Your task to perform on an android device: Empty the shopping cart on bestbuy. Add macbook pro 15 inch to the cart on bestbuy, then select checkout. Image 0: 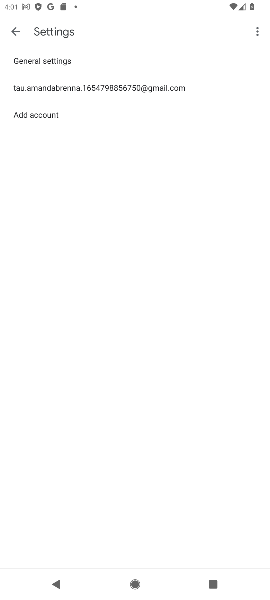
Step 0: press home button
Your task to perform on an android device: Empty the shopping cart on bestbuy. Add macbook pro 15 inch to the cart on bestbuy, then select checkout. Image 1: 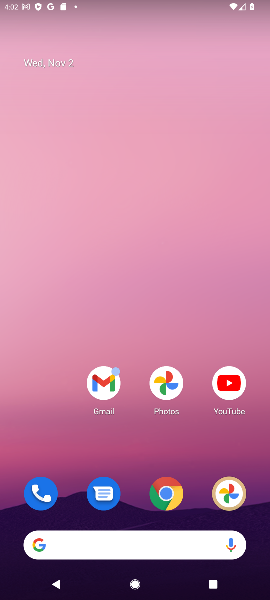
Step 1: drag from (142, 476) to (141, 155)
Your task to perform on an android device: Empty the shopping cart on bestbuy. Add macbook pro 15 inch to the cart on bestbuy, then select checkout. Image 2: 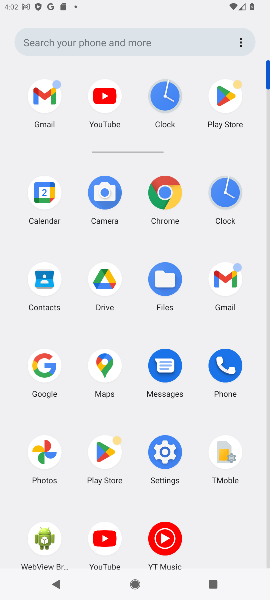
Step 2: click (42, 368)
Your task to perform on an android device: Empty the shopping cart on bestbuy. Add macbook pro 15 inch to the cart on bestbuy, then select checkout. Image 3: 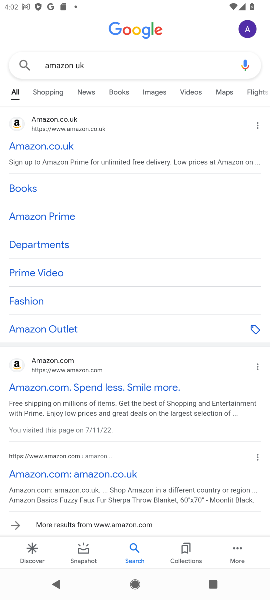
Step 3: click (98, 59)
Your task to perform on an android device: Empty the shopping cart on bestbuy. Add macbook pro 15 inch to the cart on bestbuy, then select checkout. Image 4: 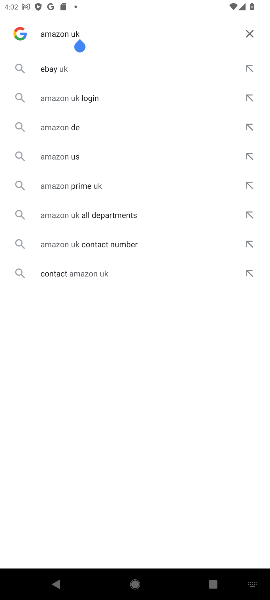
Step 4: click (252, 32)
Your task to perform on an android device: Empty the shopping cart on bestbuy. Add macbook pro 15 inch to the cart on bestbuy, then select checkout. Image 5: 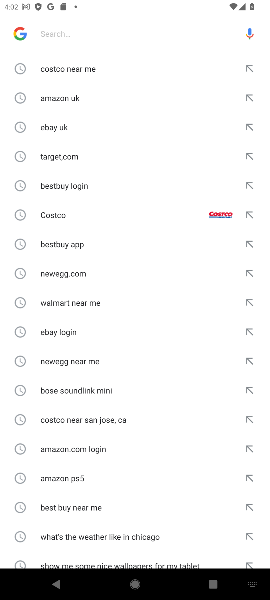
Step 5: click (67, 34)
Your task to perform on an android device: Empty the shopping cart on bestbuy. Add macbook pro 15 inch to the cart on bestbuy, then select checkout. Image 6: 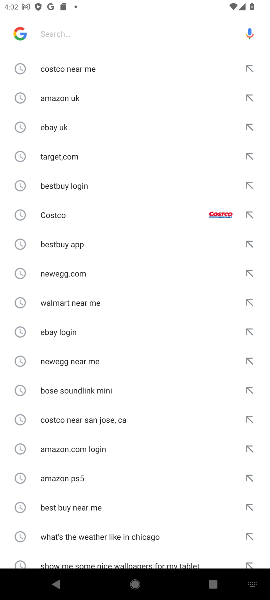
Step 6: type "bestbuy "
Your task to perform on an android device: Empty the shopping cart on bestbuy. Add macbook pro 15 inch to the cart on bestbuy, then select checkout. Image 7: 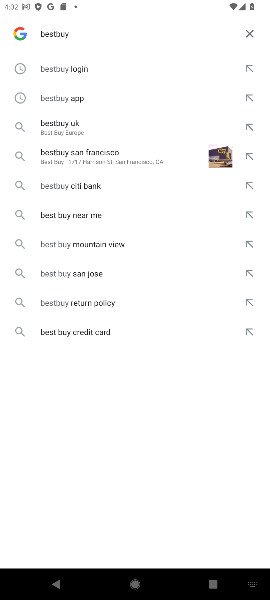
Step 7: click (60, 222)
Your task to perform on an android device: Empty the shopping cart on bestbuy. Add macbook pro 15 inch to the cart on bestbuy, then select checkout. Image 8: 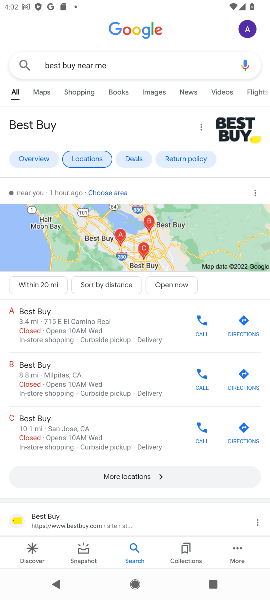
Step 8: drag from (89, 472) to (94, 327)
Your task to perform on an android device: Empty the shopping cart on bestbuy. Add macbook pro 15 inch to the cart on bestbuy, then select checkout. Image 9: 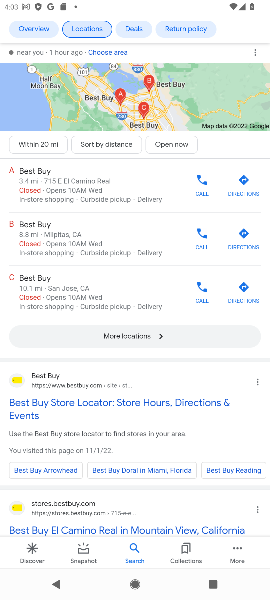
Step 9: click (15, 375)
Your task to perform on an android device: Empty the shopping cart on bestbuy. Add macbook pro 15 inch to the cart on bestbuy, then select checkout. Image 10: 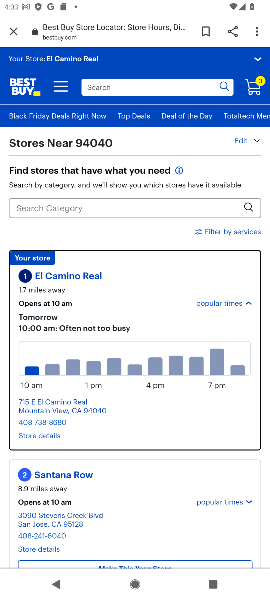
Step 10: click (109, 84)
Your task to perform on an android device: Empty the shopping cart on bestbuy. Add macbook pro 15 inch to the cart on bestbuy, then select checkout. Image 11: 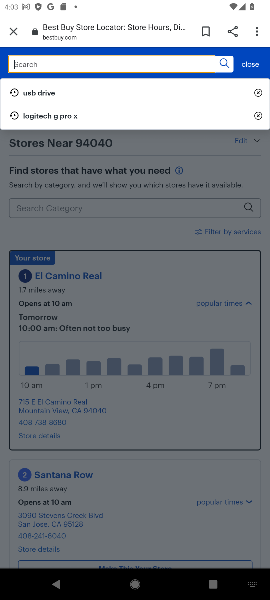
Step 11: click (24, 58)
Your task to perform on an android device: Empty the shopping cart on bestbuy. Add macbook pro 15 inch to the cart on bestbuy, then select checkout. Image 12: 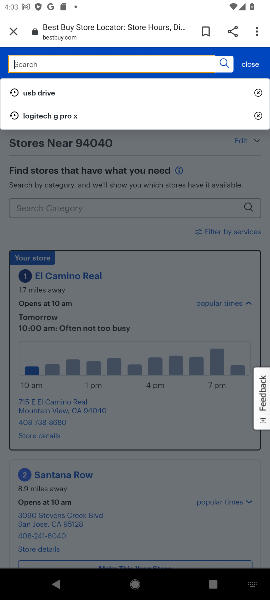
Step 12: type "macbook "
Your task to perform on an android device: Empty the shopping cart on bestbuy. Add macbook pro 15 inch to the cart on bestbuy, then select checkout. Image 13: 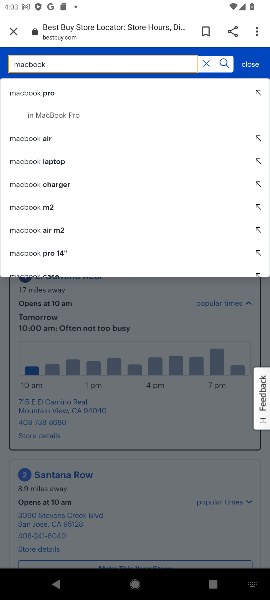
Step 13: click (40, 136)
Your task to perform on an android device: Empty the shopping cart on bestbuy. Add macbook pro 15 inch to the cart on bestbuy, then select checkout. Image 14: 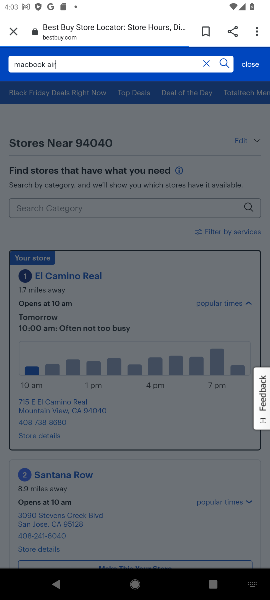
Step 14: click (87, 67)
Your task to perform on an android device: Empty the shopping cart on bestbuy. Add macbook pro 15 inch to the cart on bestbuy, then select checkout. Image 15: 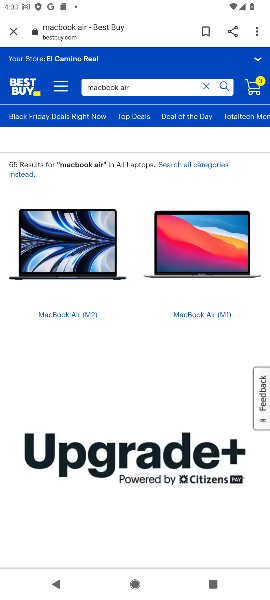
Step 15: click (87, 67)
Your task to perform on an android device: Empty the shopping cart on bestbuy. Add macbook pro 15 inch to the cart on bestbuy, then select checkout. Image 16: 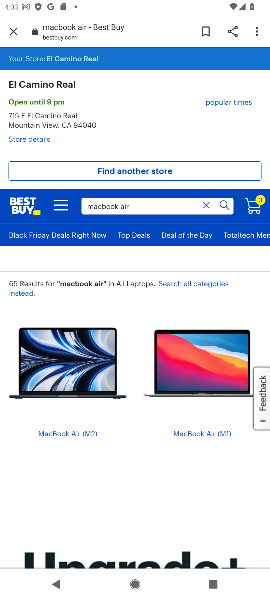
Step 16: click (87, 64)
Your task to perform on an android device: Empty the shopping cart on bestbuy. Add macbook pro 15 inch to the cart on bestbuy, then select checkout. Image 17: 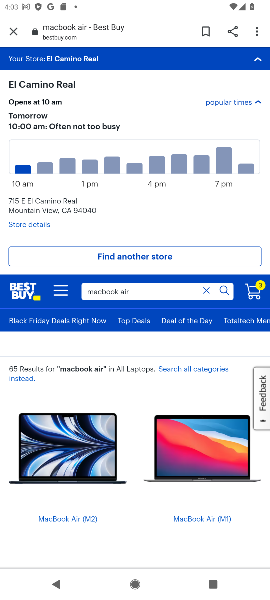
Step 17: click (63, 421)
Your task to perform on an android device: Empty the shopping cart on bestbuy. Add macbook pro 15 inch to the cart on bestbuy, then select checkout. Image 18: 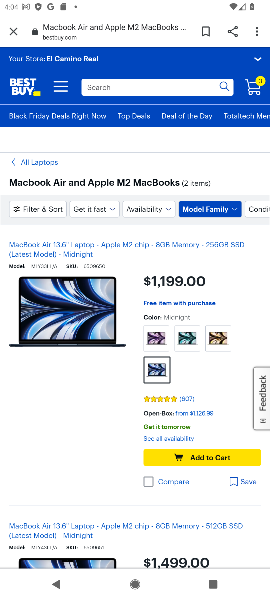
Step 18: click (132, 81)
Your task to perform on an android device: Empty the shopping cart on bestbuy. Add macbook pro 15 inch to the cart on bestbuy, then select checkout. Image 19: 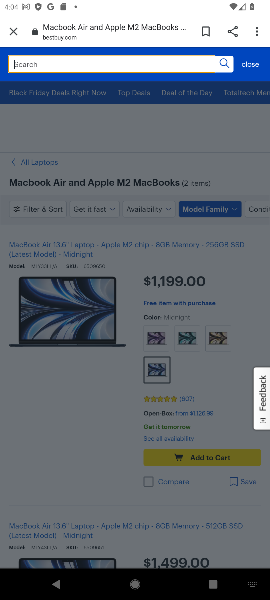
Step 19: click (119, 61)
Your task to perform on an android device: Empty the shopping cart on bestbuy. Add macbook pro 15 inch to the cart on bestbuy, then select checkout. Image 20: 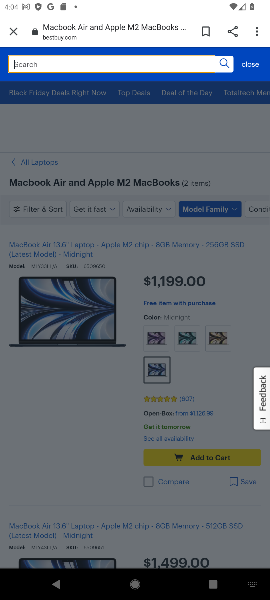
Step 20: type " macbook pro 15 i "
Your task to perform on an android device: Empty the shopping cart on bestbuy. Add macbook pro 15 inch to the cart on bestbuy, then select checkout. Image 21: 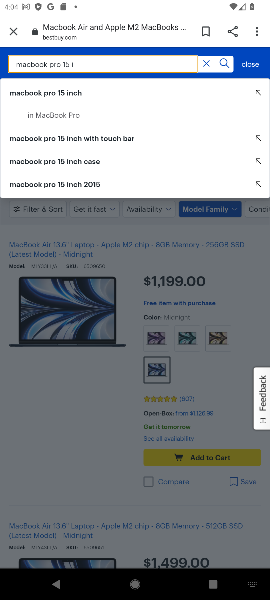
Step 21: click (65, 94)
Your task to perform on an android device: Empty the shopping cart on bestbuy. Add macbook pro 15 inch to the cart on bestbuy, then select checkout. Image 22: 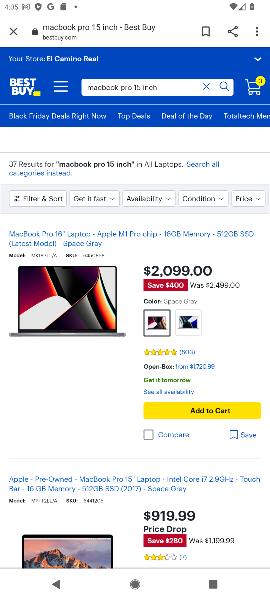
Step 22: click (215, 408)
Your task to perform on an android device: Empty the shopping cart on bestbuy. Add macbook pro 15 inch to the cart on bestbuy, then select checkout. Image 23: 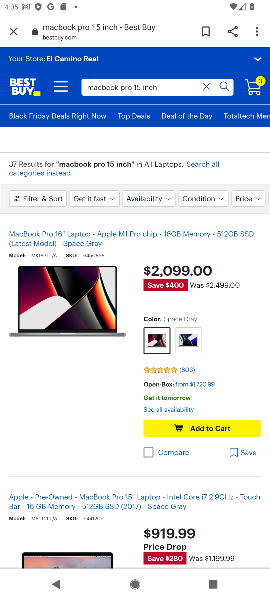
Step 23: task complete